Your task to perform on an android device: Go to privacy settings Image 0: 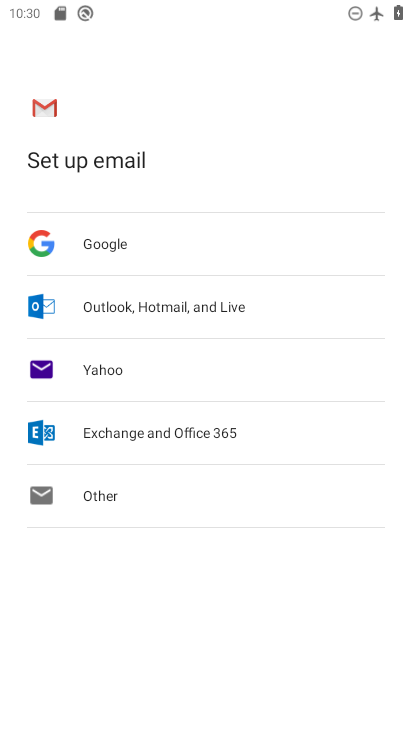
Step 0: press home button
Your task to perform on an android device: Go to privacy settings Image 1: 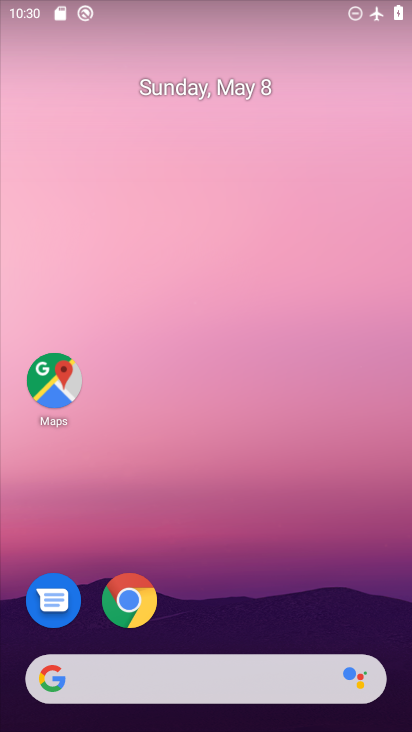
Step 1: drag from (221, 715) to (221, 197)
Your task to perform on an android device: Go to privacy settings Image 2: 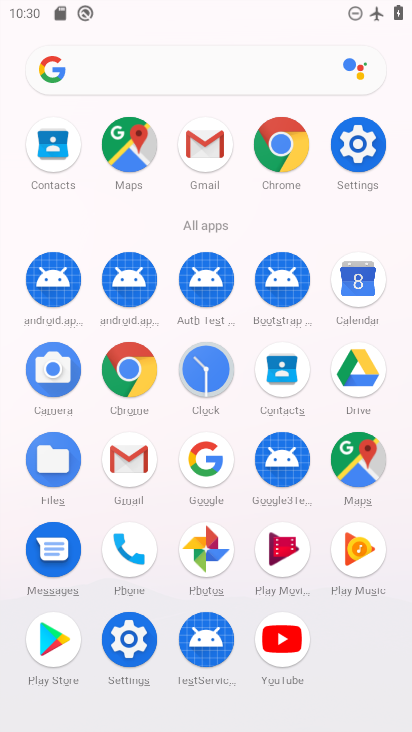
Step 2: click (354, 139)
Your task to perform on an android device: Go to privacy settings Image 3: 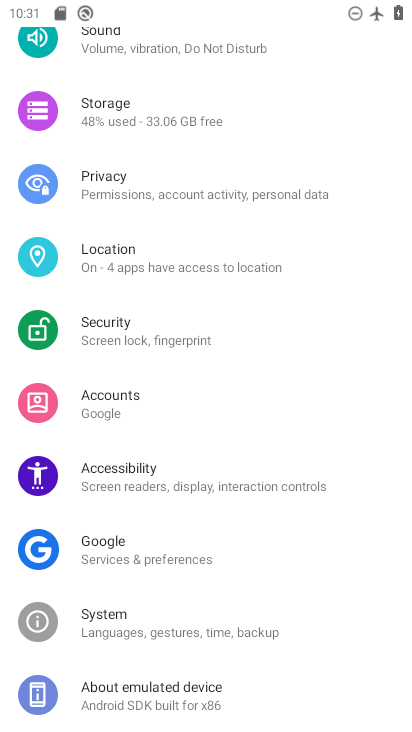
Step 3: click (108, 184)
Your task to perform on an android device: Go to privacy settings Image 4: 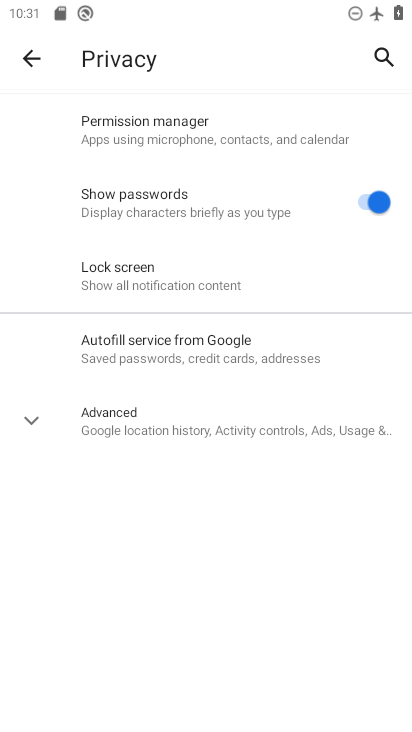
Step 4: task complete